Your task to perform on an android device: Open Youtube and go to "Your channel" Image 0: 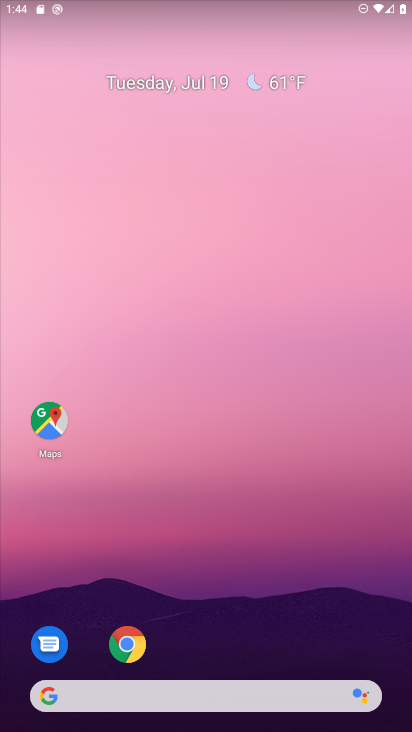
Step 0: drag from (177, 674) to (177, 96)
Your task to perform on an android device: Open Youtube and go to "Your channel" Image 1: 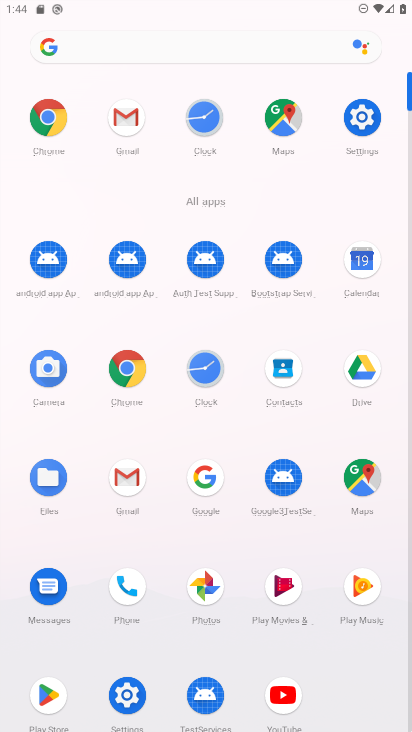
Step 1: click (285, 693)
Your task to perform on an android device: Open Youtube and go to "Your channel" Image 2: 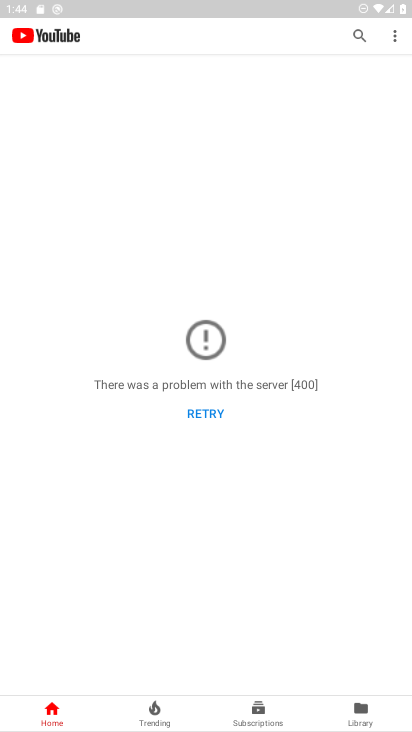
Step 2: click (362, 713)
Your task to perform on an android device: Open Youtube and go to "Your channel" Image 3: 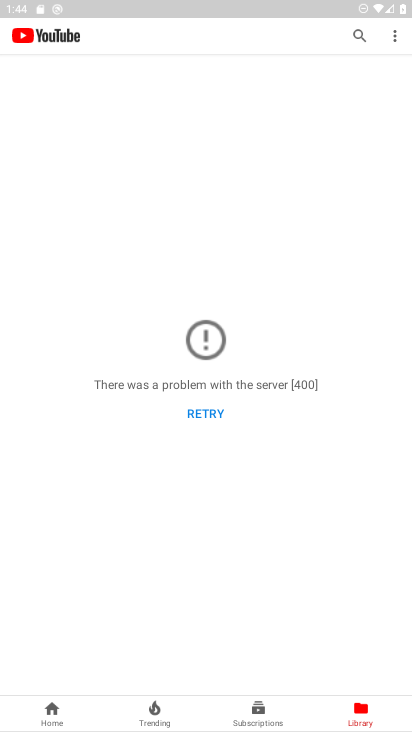
Step 3: click (395, 34)
Your task to perform on an android device: Open Youtube and go to "Your channel" Image 4: 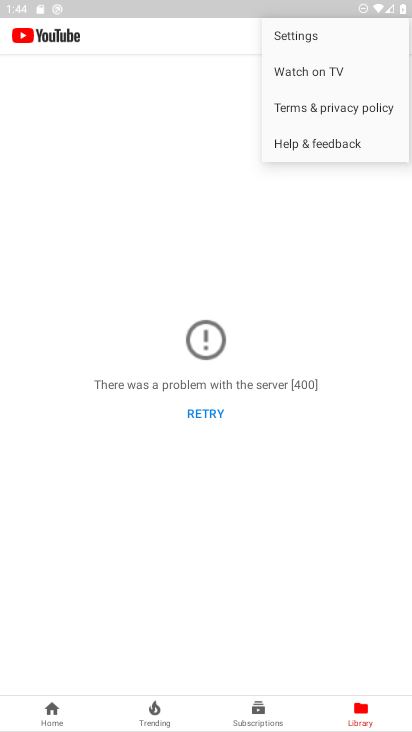
Step 4: task complete